Your task to perform on an android device: Open Yahoo.com Image 0: 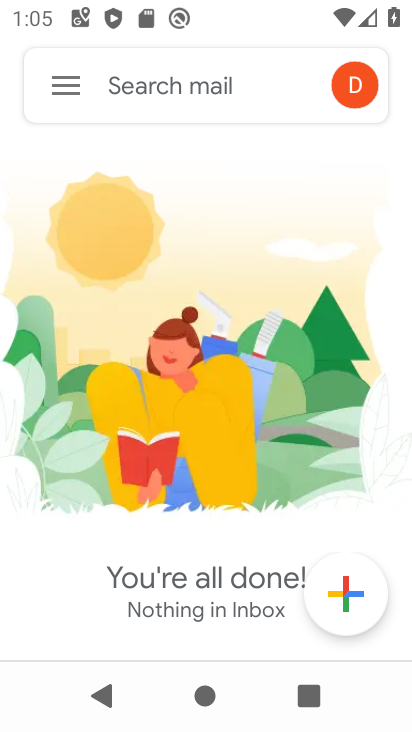
Step 0: press home button
Your task to perform on an android device: Open Yahoo.com Image 1: 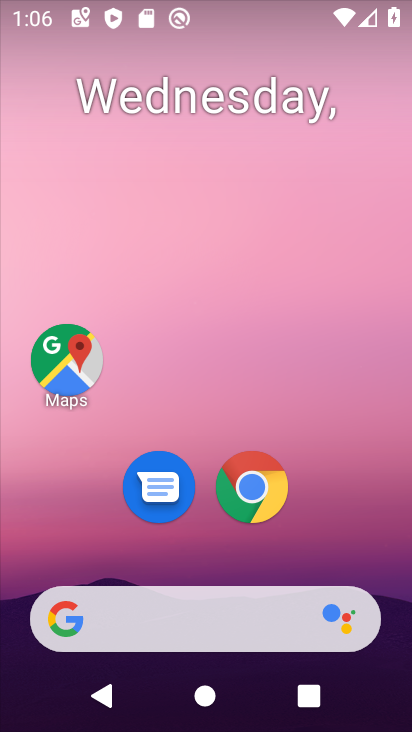
Step 1: click (262, 473)
Your task to perform on an android device: Open Yahoo.com Image 2: 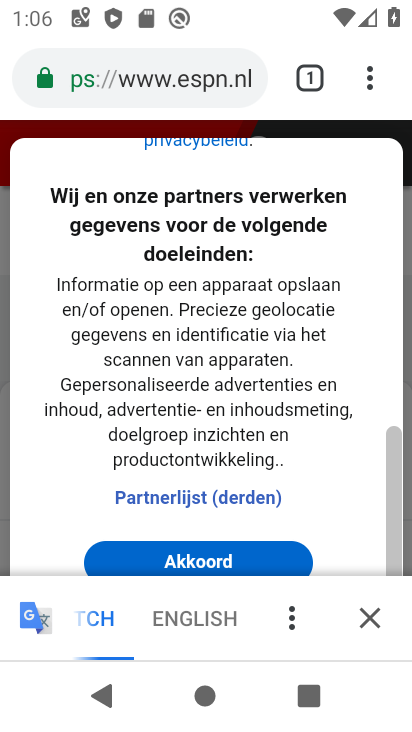
Step 2: click (252, 506)
Your task to perform on an android device: Open Yahoo.com Image 3: 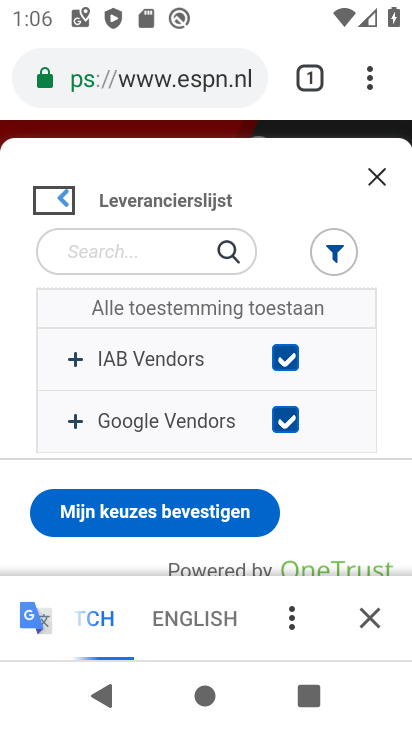
Step 3: click (195, 85)
Your task to perform on an android device: Open Yahoo.com Image 4: 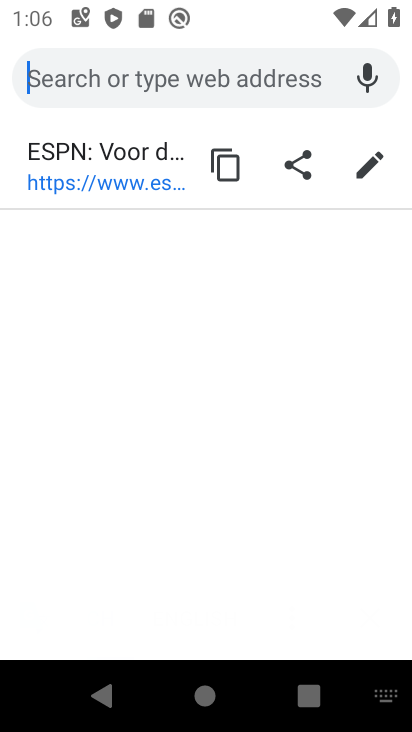
Step 4: type "yahoo.com"
Your task to perform on an android device: Open Yahoo.com Image 5: 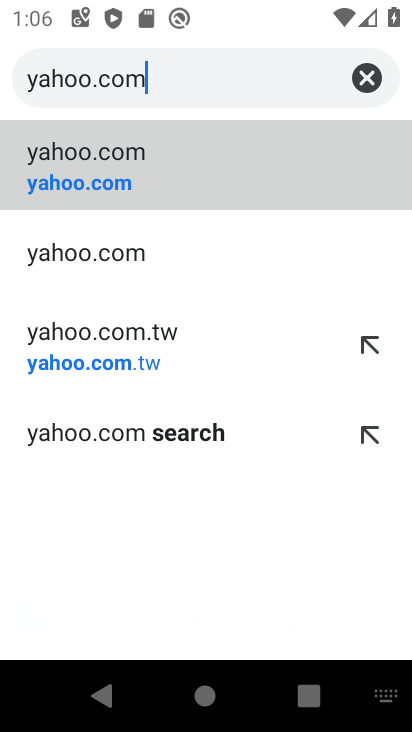
Step 5: click (132, 172)
Your task to perform on an android device: Open Yahoo.com Image 6: 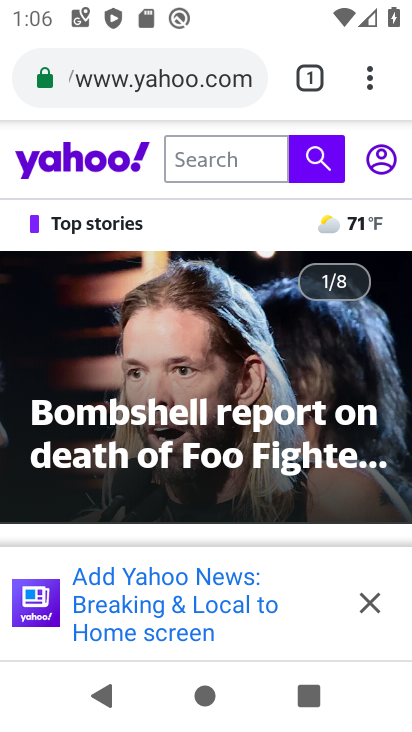
Step 6: task complete